Your task to perform on an android device: Go to calendar. Show me events next week Image 0: 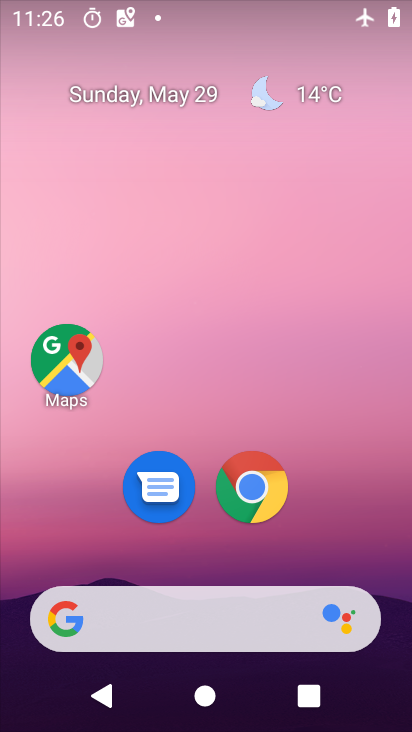
Step 0: drag from (389, 633) to (364, 52)
Your task to perform on an android device: Go to calendar. Show me events next week Image 1: 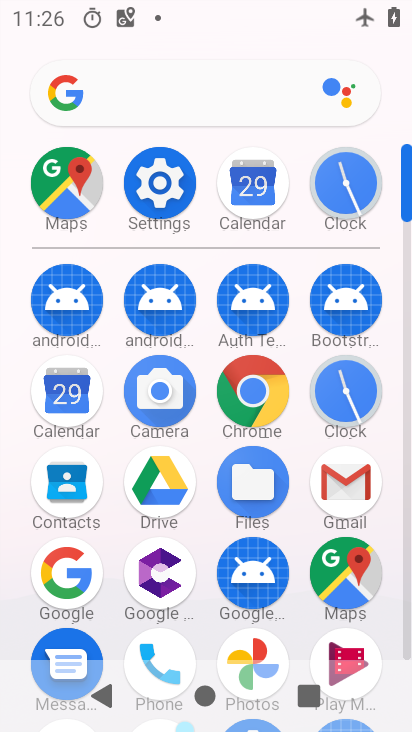
Step 1: click (48, 412)
Your task to perform on an android device: Go to calendar. Show me events next week Image 2: 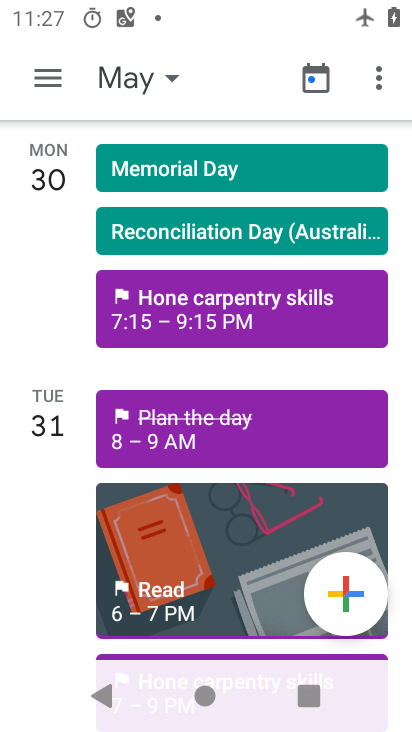
Step 2: click (163, 76)
Your task to perform on an android device: Go to calendar. Show me events next week Image 3: 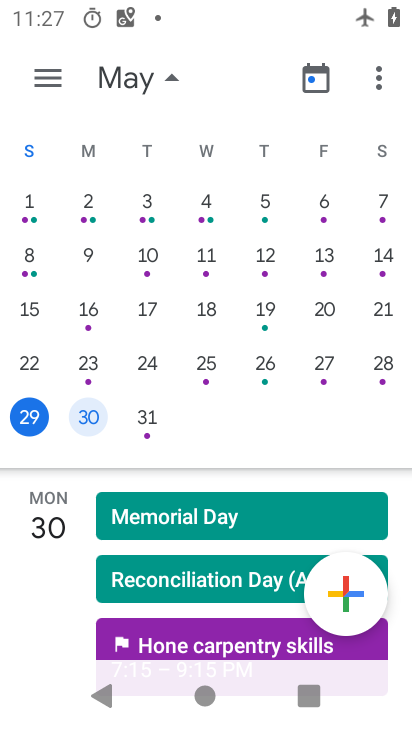
Step 3: drag from (408, 250) to (132, 215)
Your task to perform on an android device: Go to calendar. Show me events next week Image 4: 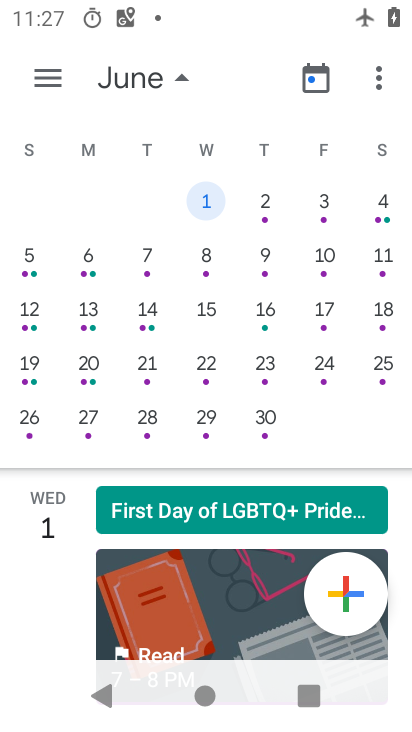
Step 4: click (205, 254)
Your task to perform on an android device: Go to calendar. Show me events next week Image 5: 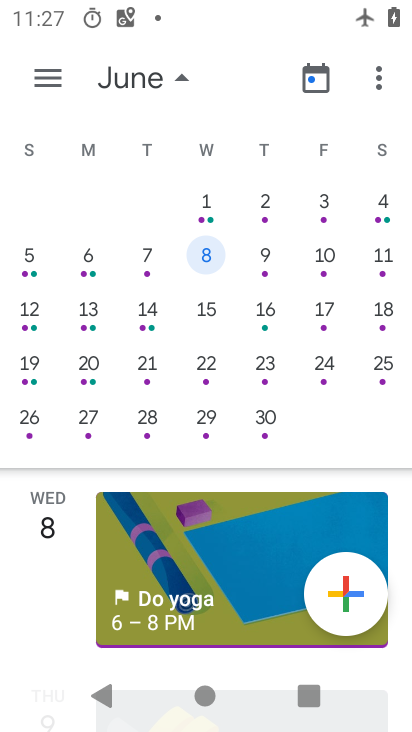
Step 5: click (32, 77)
Your task to perform on an android device: Go to calendar. Show me events next week Image 6: 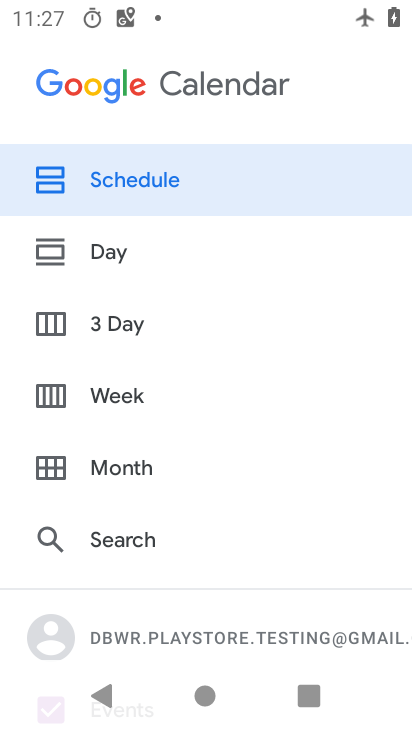
Step 6: click (111, 396)
Your task to perform on an android device: Go to calendar. Show me events next week Image 7: 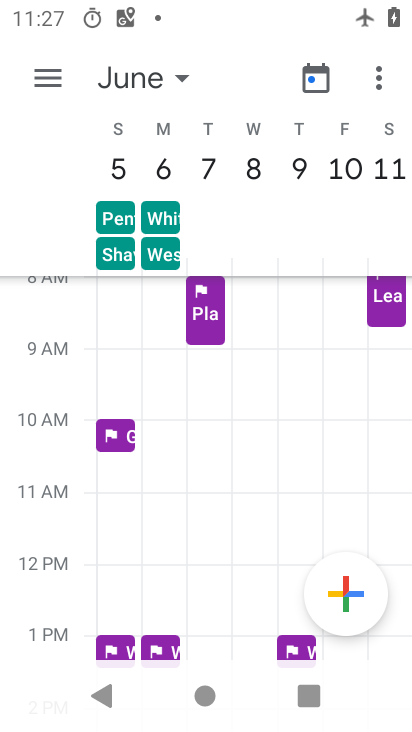
Step 7: task complete